Your task to perform on an android device: open wifi settings Image 0: 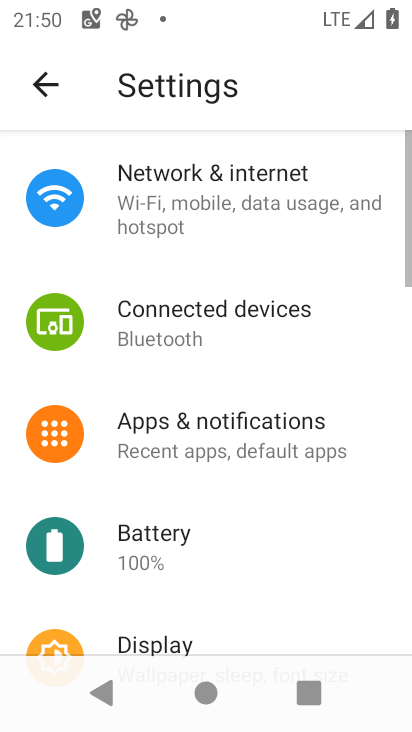
Step 0: click (236, 173)
Your task to perform on an android device: open wifi settings Image 1: 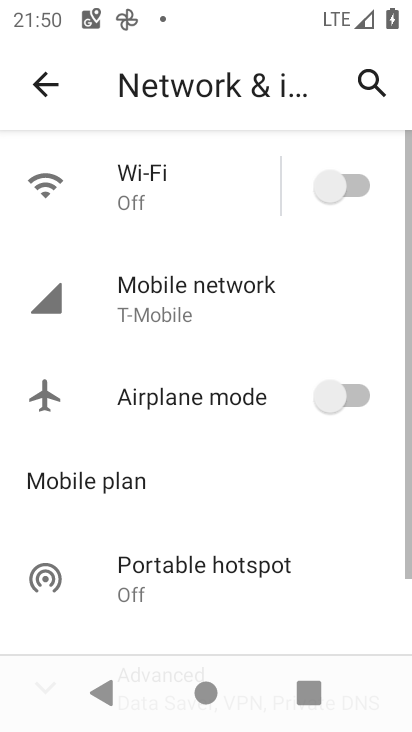
Step 1: click (340, 182)
Your task to perform on an android device: open wifi settings Image 2: 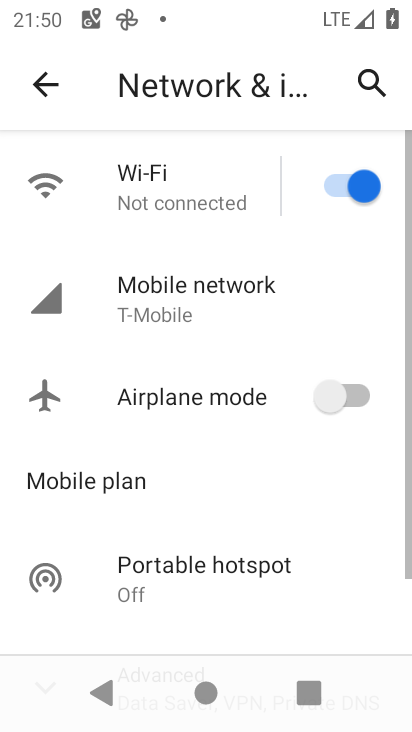
Step 2: task complete